Your task to perform on an android device: check storage Image 0: 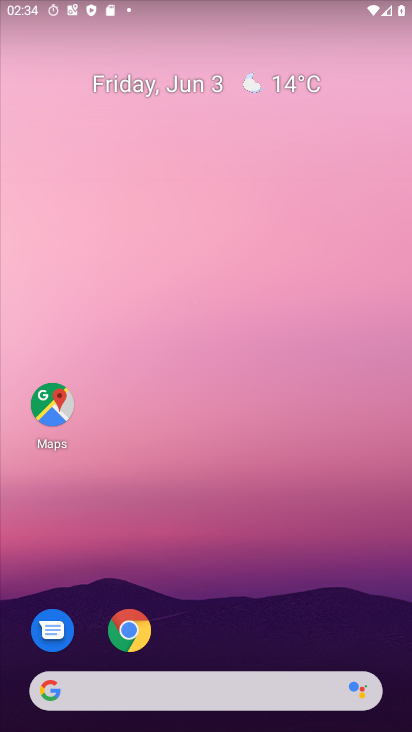
Step 0: drag from (391, 641) to (379, 239)
Your task to perform on an android device: check storage Image 1: 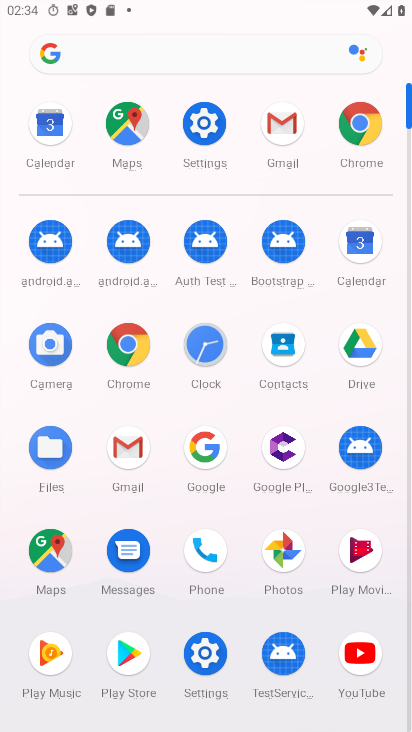
Step 1: click (217, 123)
Your task to perform on an android device: check storage Image 2: 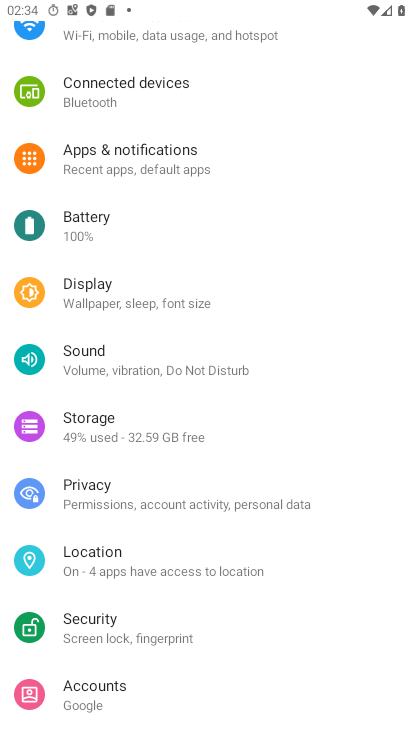
Step 2: click (107, 426)
Your task to perform on an android device: check storage Image 3: 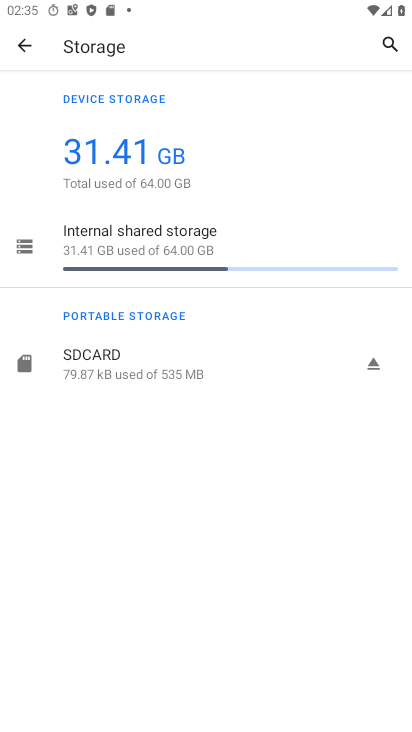
Step 3: task complete